Your task to perform on an android device: Clear all items from cart on ebay.com. Image 0: 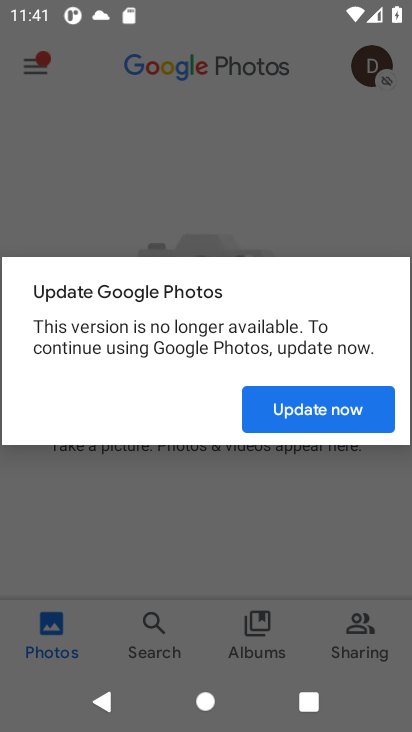
Step 0: press home button
Your task to perform on an android device: Clear all items from cart on ebay.com. Image 1: 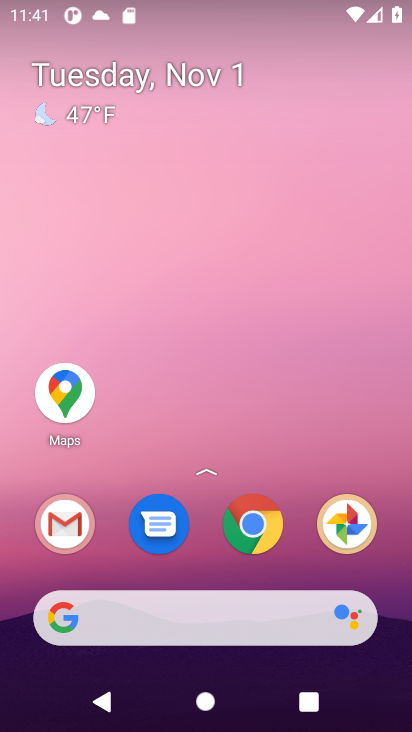
Step 1: click (99, 620)
Your task to perform on an android device: Clear all items from cart on ebay.com. Image 2: 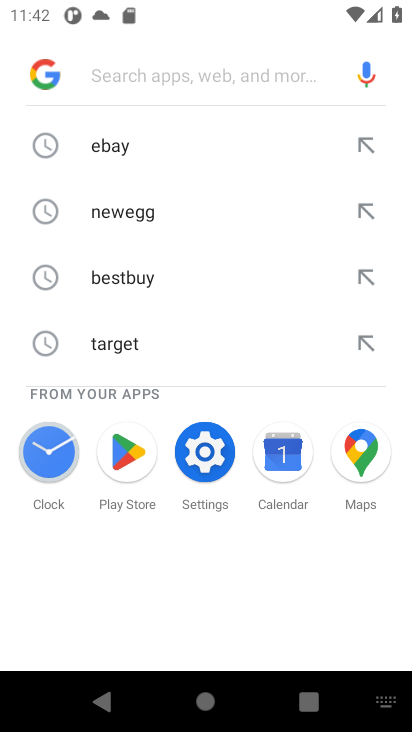
Step 2: type "ebay.com"
Your task to perform on an android device: Clear all items from cart on ebay.com. Image 3: 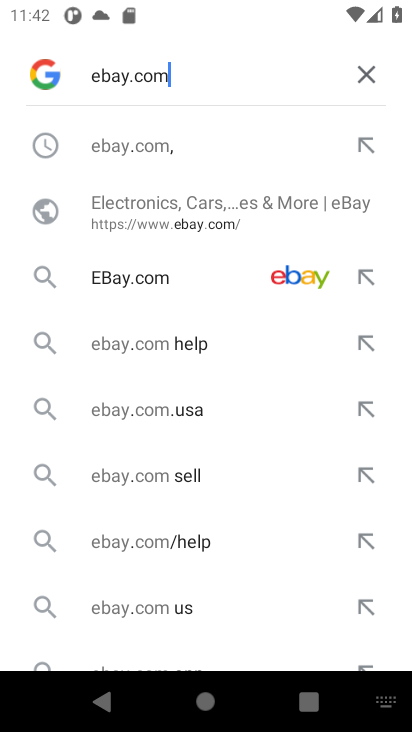
Step 3: press enter
Your task to perform on an android device: Clear all items from cart on ebay.com. Image 4: 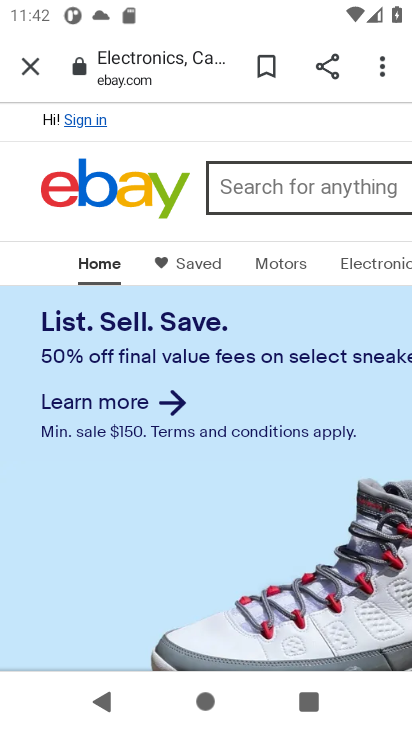
Step 4: drag from (330, 224) to (29, 217)
Your task to perform on an android device: Clear all items from cart on ebay.com. Image 5: 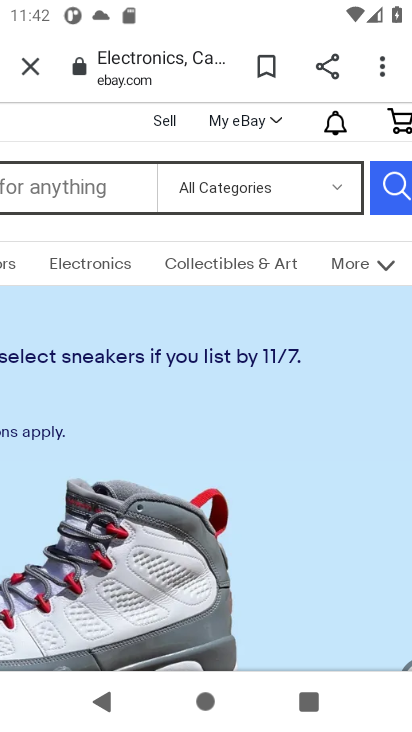
Step 5: click (401, 120)
Your task to perform on an android device: Clear all items from cart on ebay.com. Image 6: 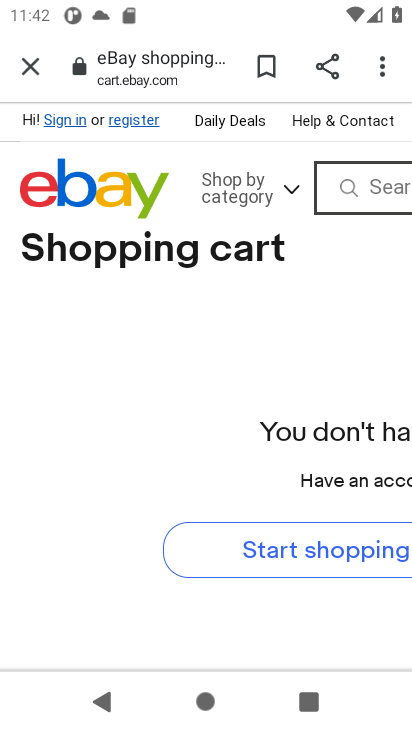
Step 6: task complete